Your task to perform on an android device: set the timer Image 0: 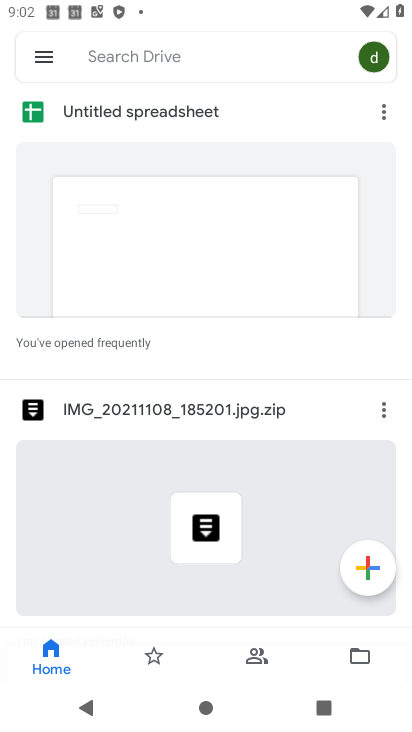
Step 0: press home button
Your task to perform on an android device: set the timer Image 1: 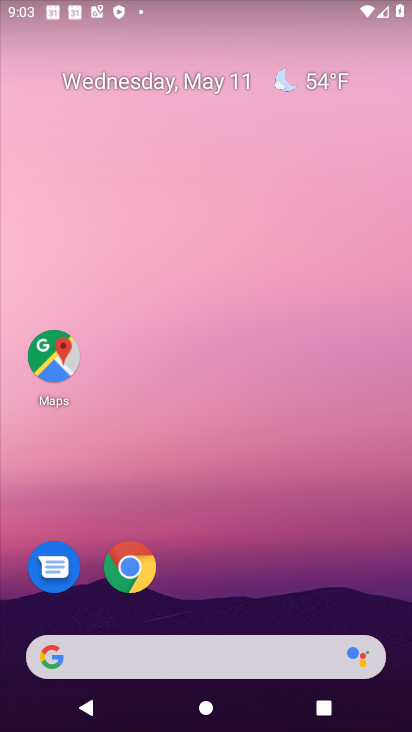
Step 1: drag from (248, 607) to (238, 17)
Your task to perform on an android device: set the timer Image 2: 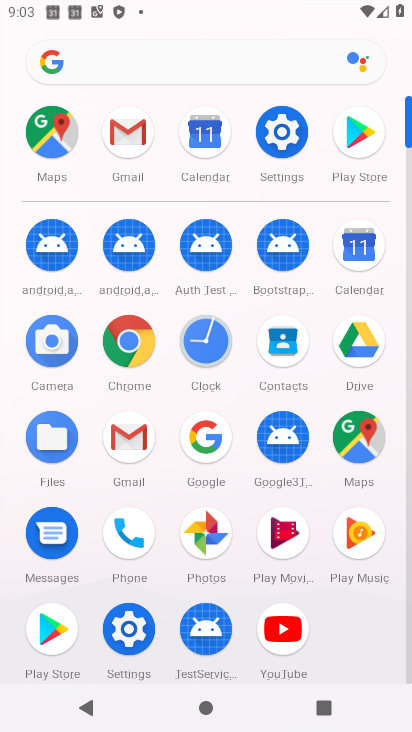
Step 2: click (212, 337)
Your task to perform on an android device: set the timer Image 3: 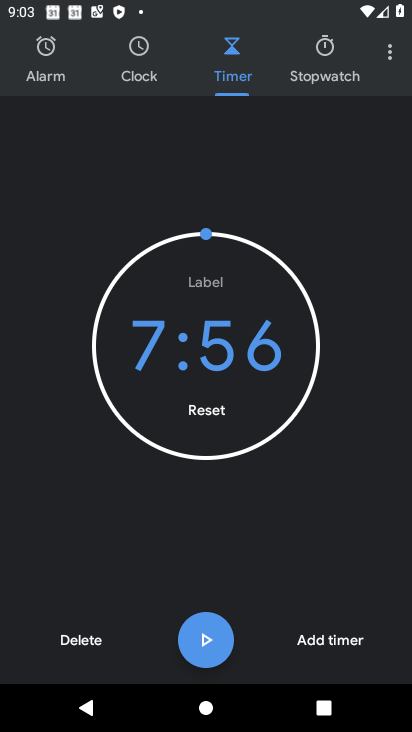
Step 3: click (82, 634)
Your task to perform on an android device: set the timer Image 4: 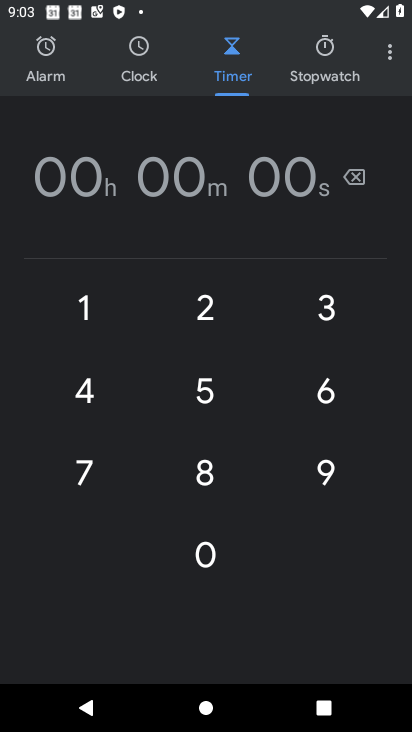
Step 4: click (86, 390)
Your task to perform on an android device: set the timer Image 5: 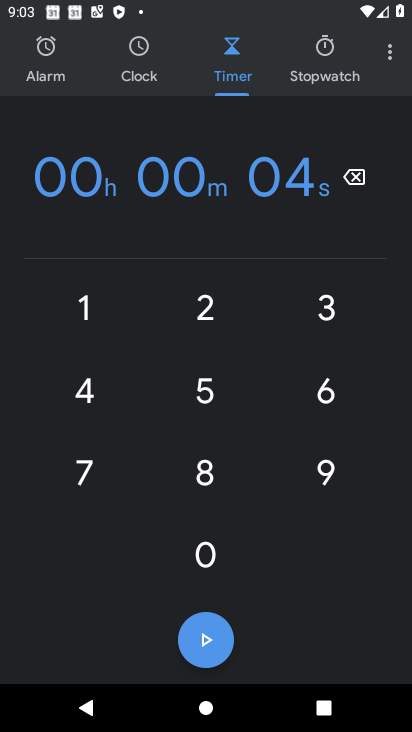
Step 5: click (214, 398)
Your task to perform on an android device: set the timer Image 6: 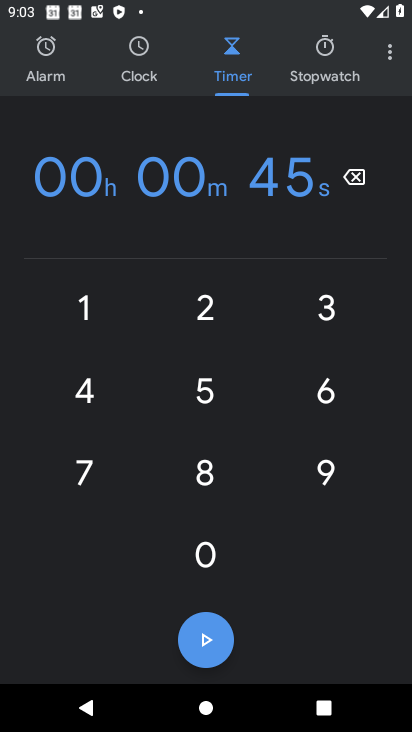
Step 6: click (317, 393)
Your task to perform on an android device: set the timer Image 7: 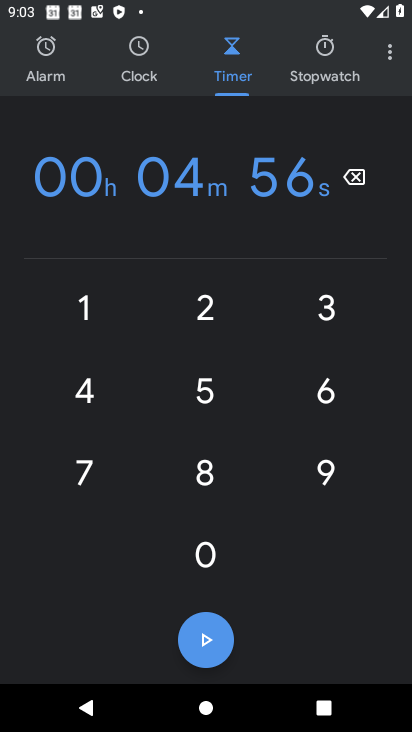
Step 7: click (213, 634)
Your task to perform on an android device: set the timer Image 8: 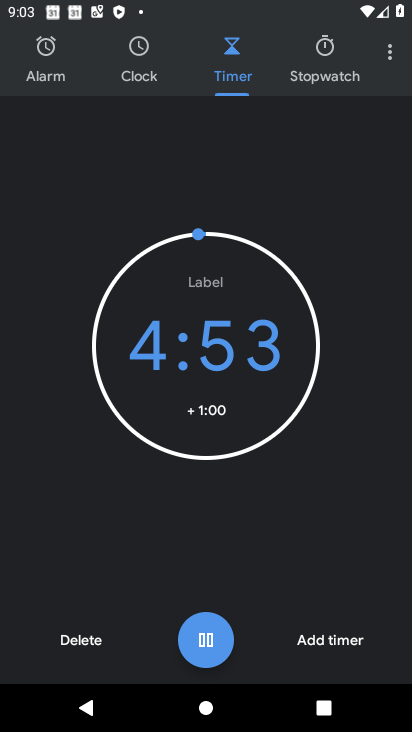
Step 8: task complete